Your task to perform on an android device: install app "Duolingo: language lessons" Image 0: 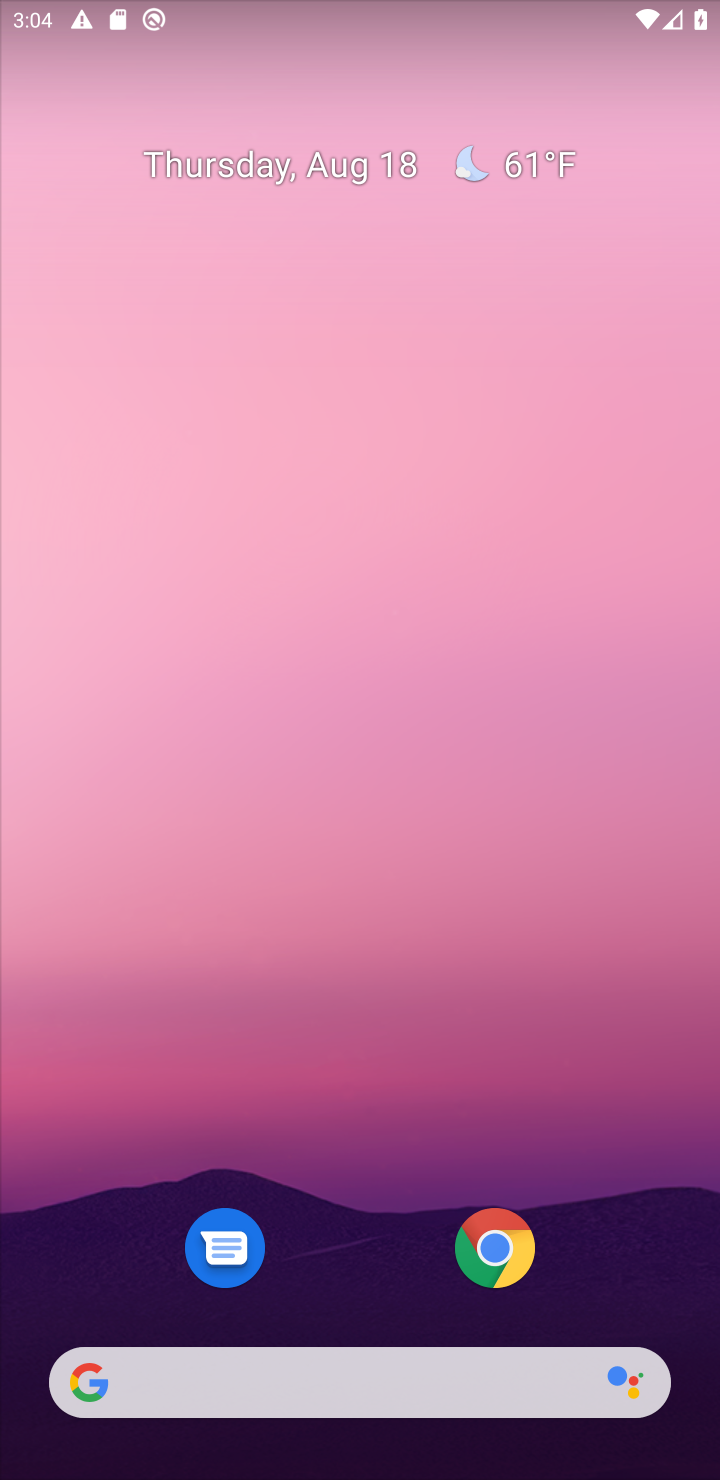
Step 0: drag from (383, 1269) to (412, 358)
Your task to perform on an android device: install app "Duolingo: language lessons" Image 1: 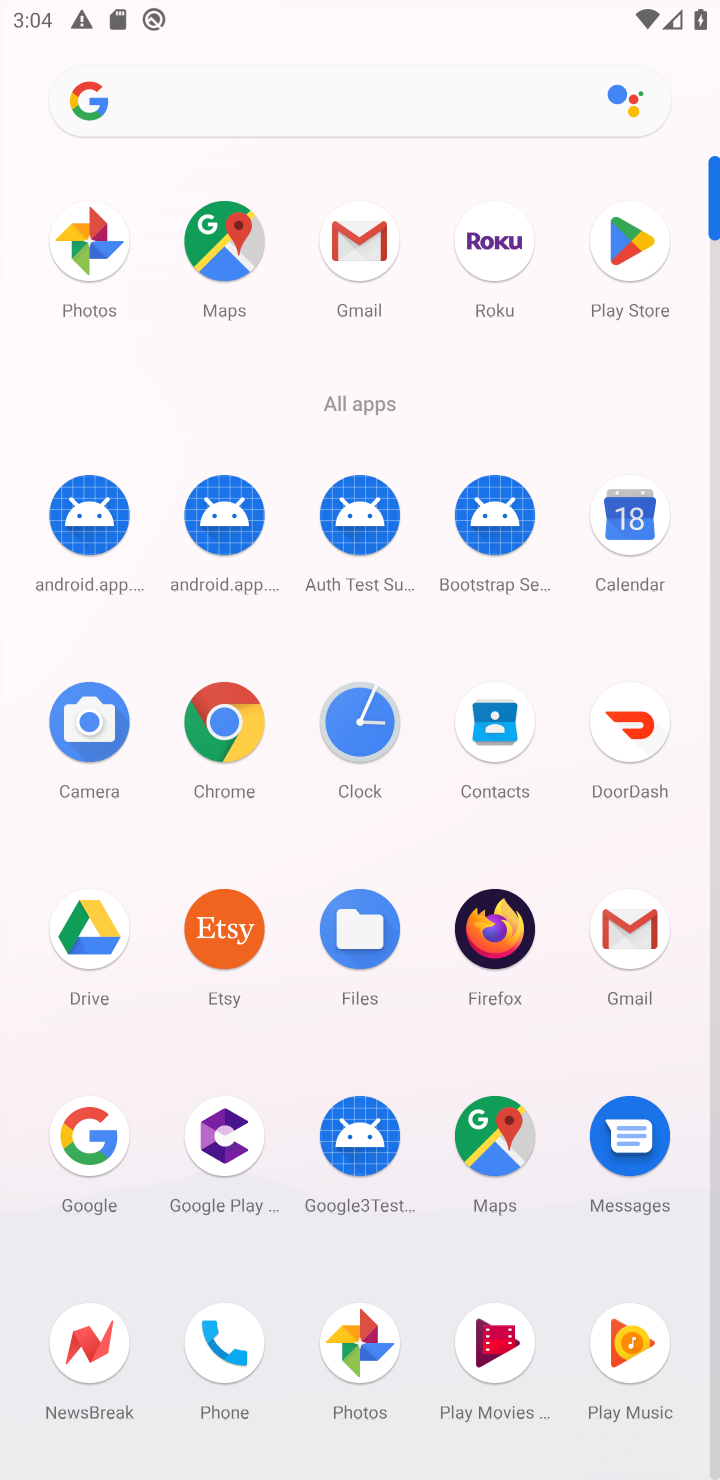
Step 1: click (626, 245)
Your task to perform on an android device: install app "Duolingo: language lessons" Image 2: 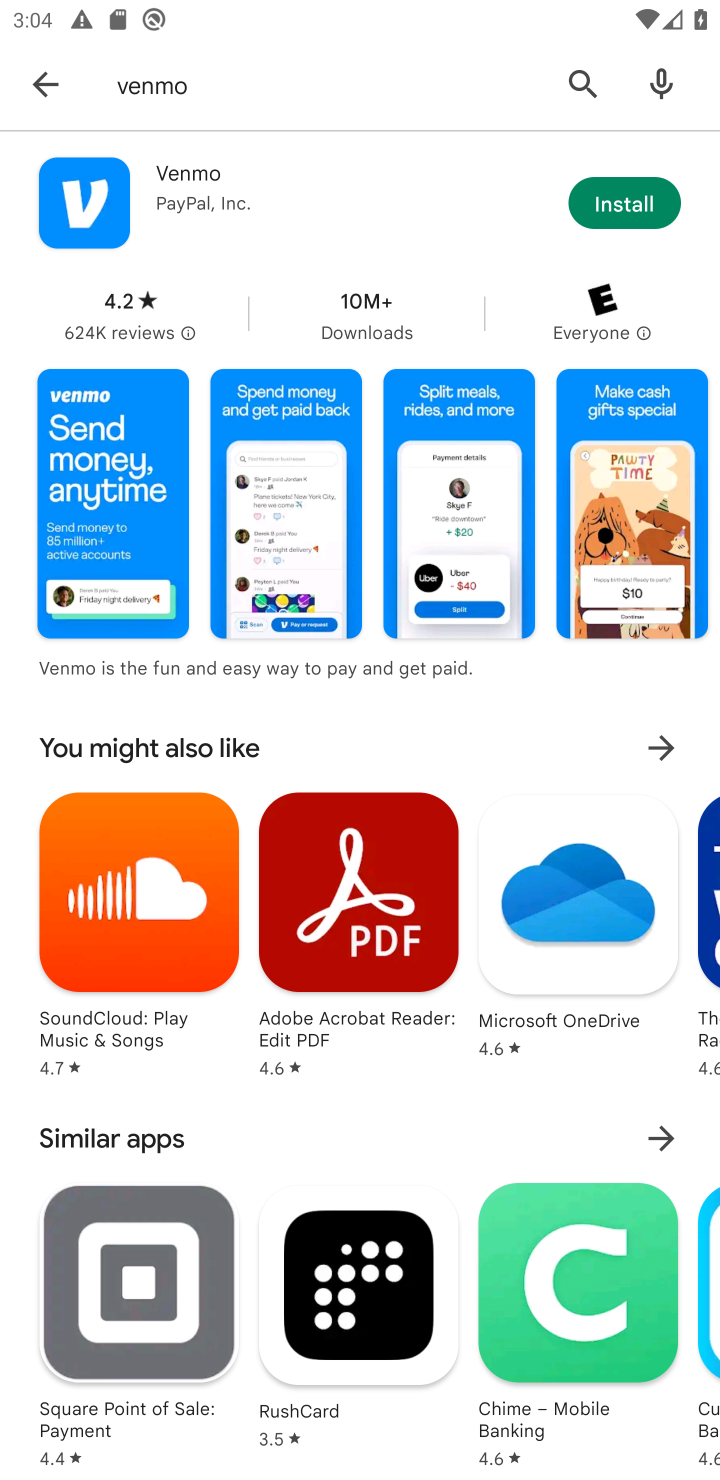
Step 2: click (577, 84)
Your task to perform on an android device: install app "Duolingo: language lessons" Image 3: 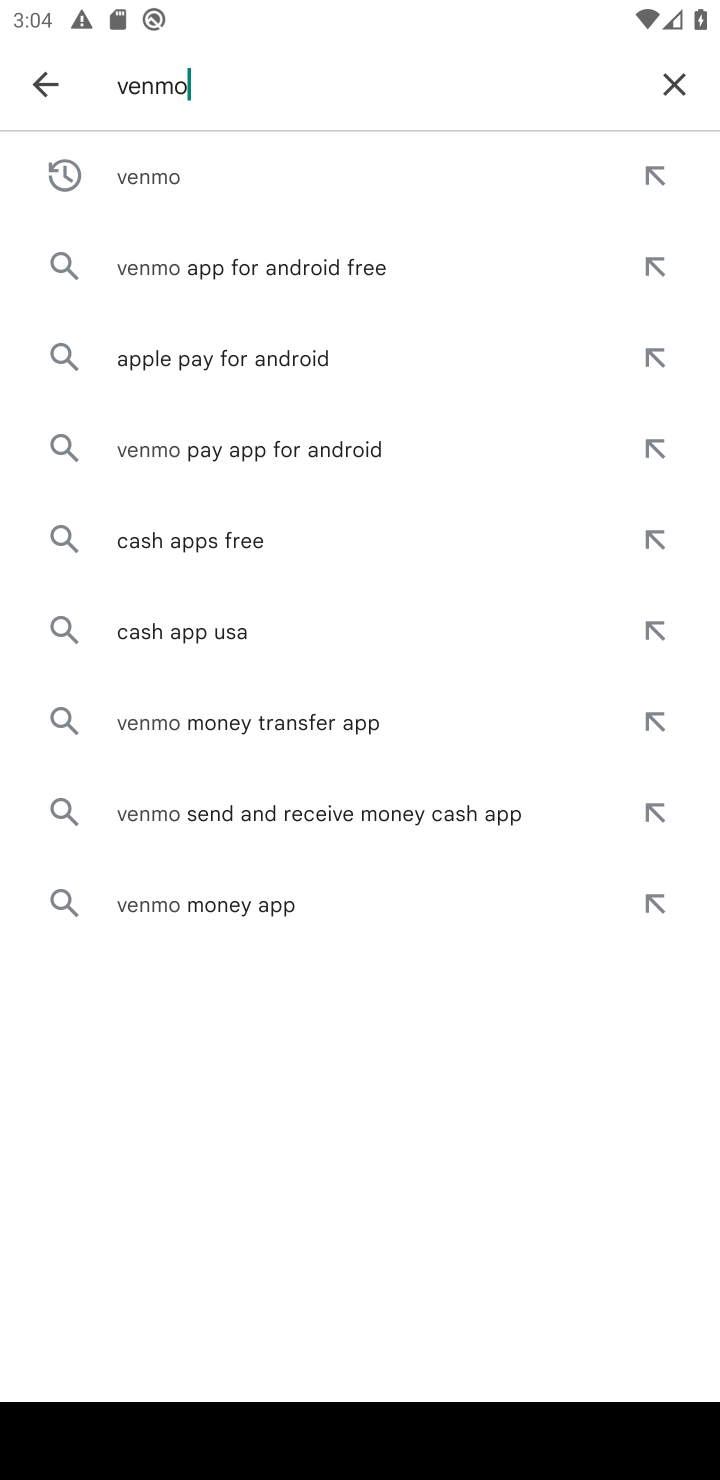
Step 3: click (664, 75)
Your task to perform on an android device: install app "Duolingo: language lessons" Image 4: 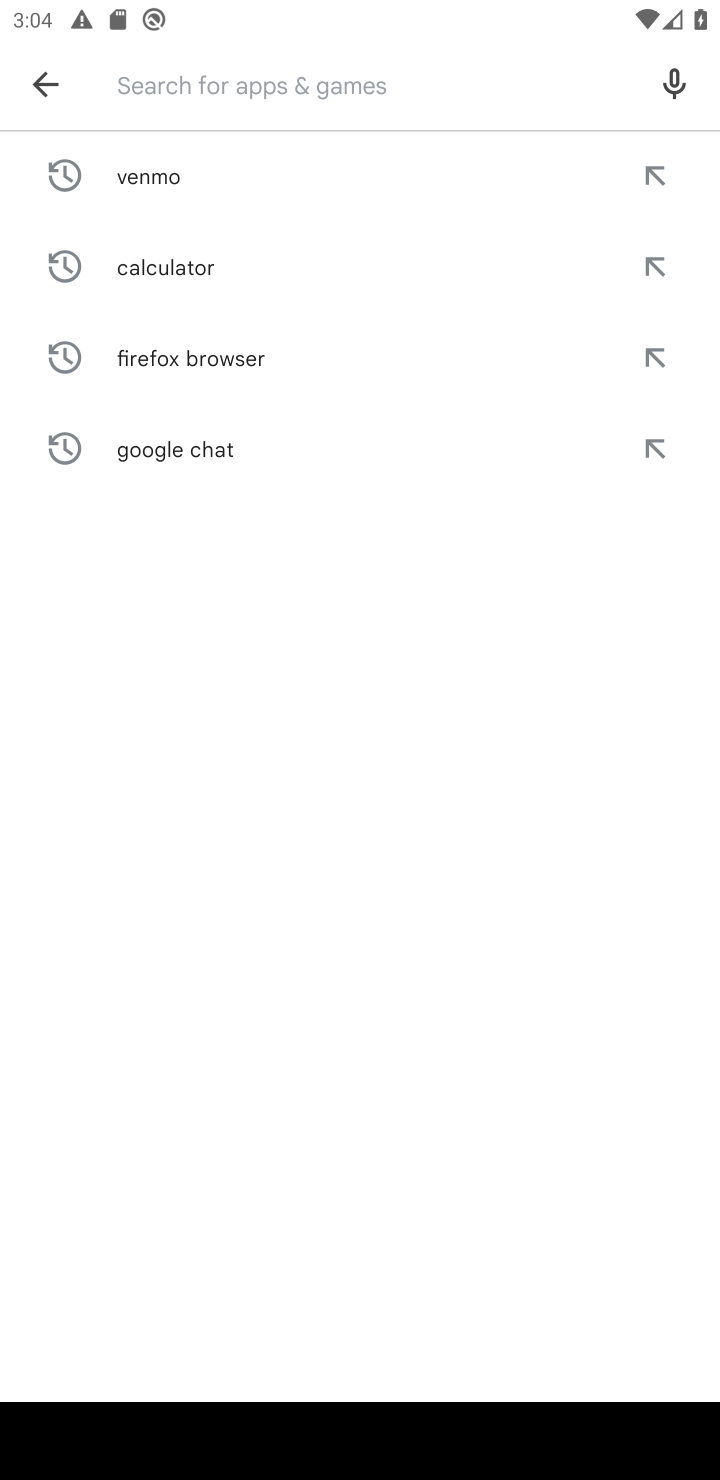
Step 4: type "Duolingo: language lessons"
Your task to perform on an android device: install app "Duolingo: language lessons" Image 5: 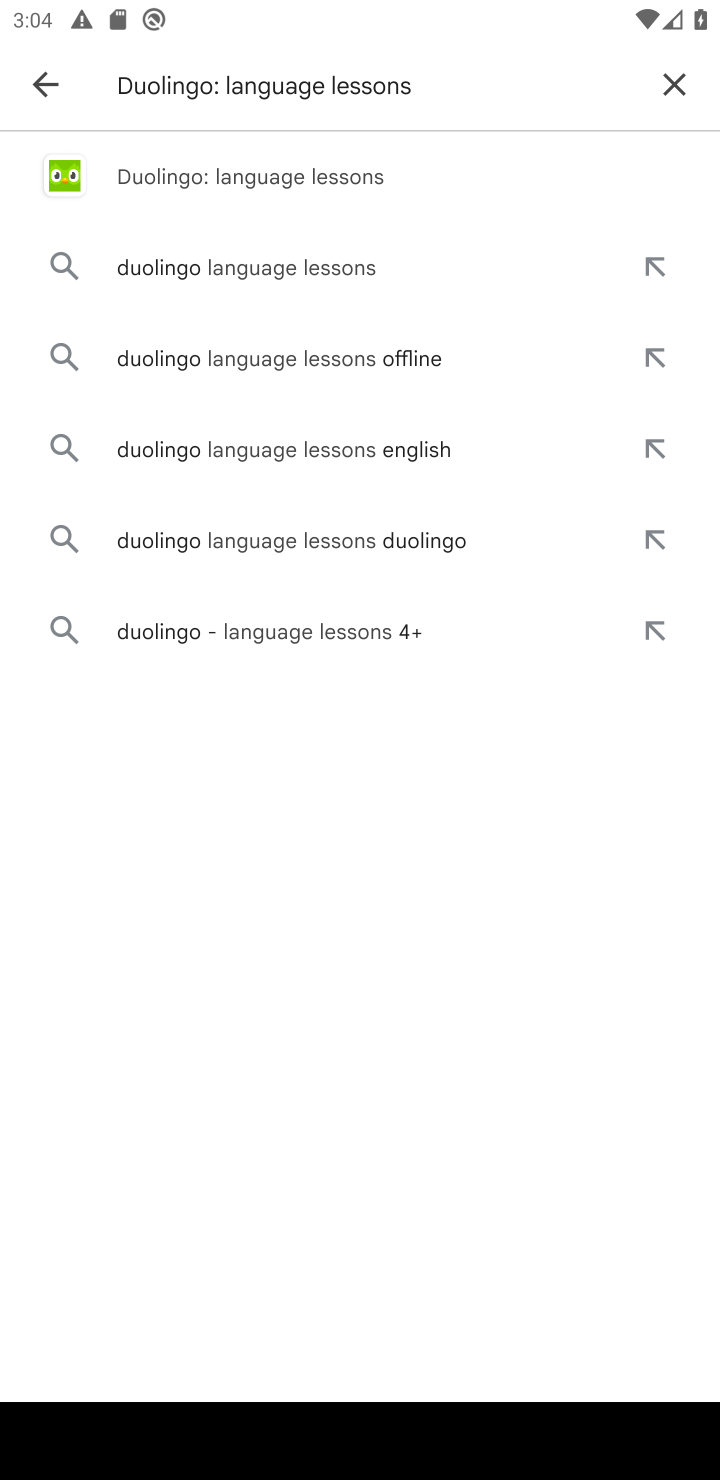
Step 5: click (213, 179)
Your task to perform on an android device: install app "Duolingo: language lessons" Image 6: 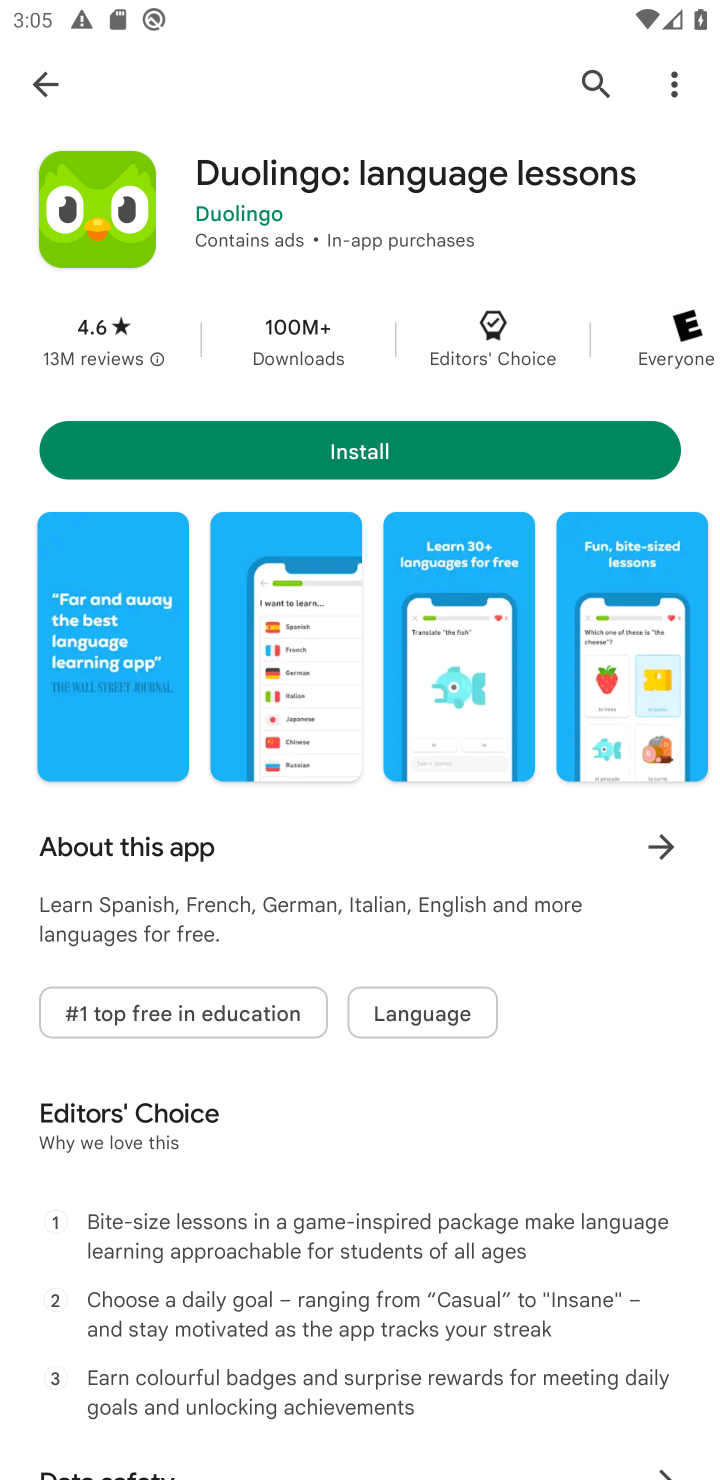
Step 6: click (371, 452)
Your task to perform on an android device: install app "Duolingo: language lessons" Image 7: 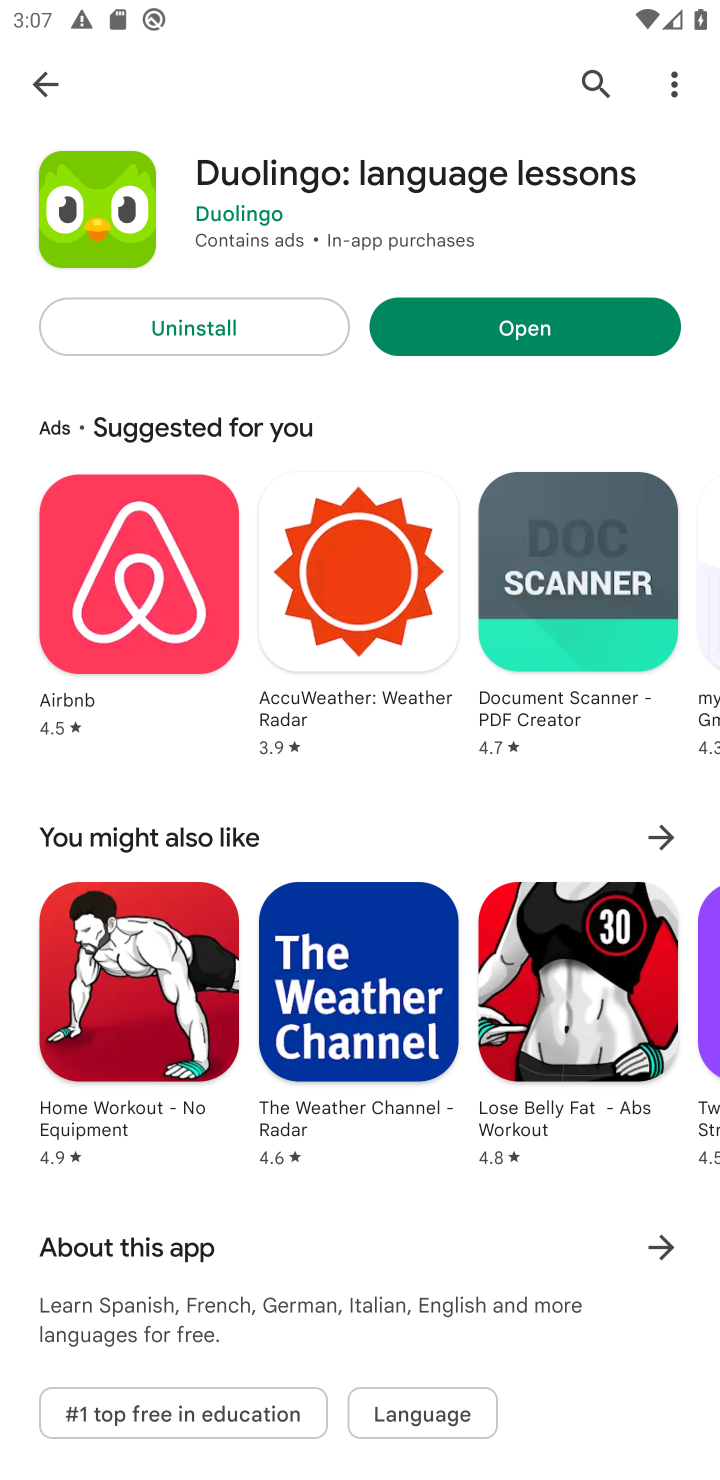
Step 7: task complete